Your task to perform on an android device: change notifications settings Image 0: 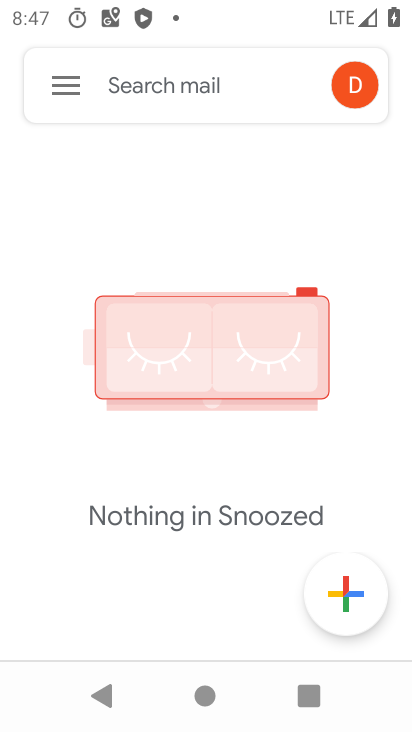
Step 0: press home button
Your task to perform on an android device: change notifications settings Image 1: 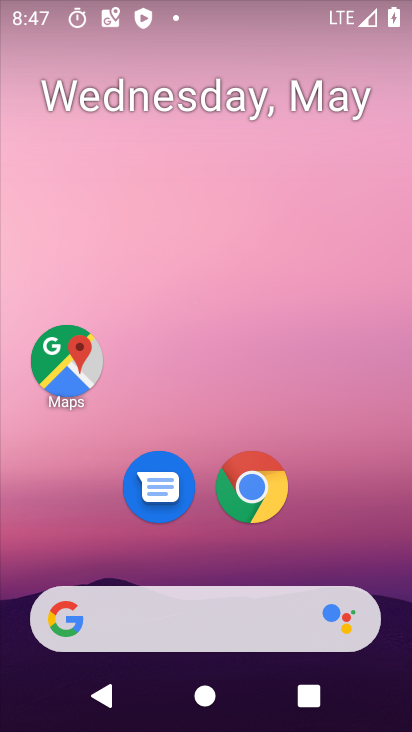
Step 1: drag from (203, 563) to (197, 206)
Your task to perform on an android device: change notifications settings Image 2: 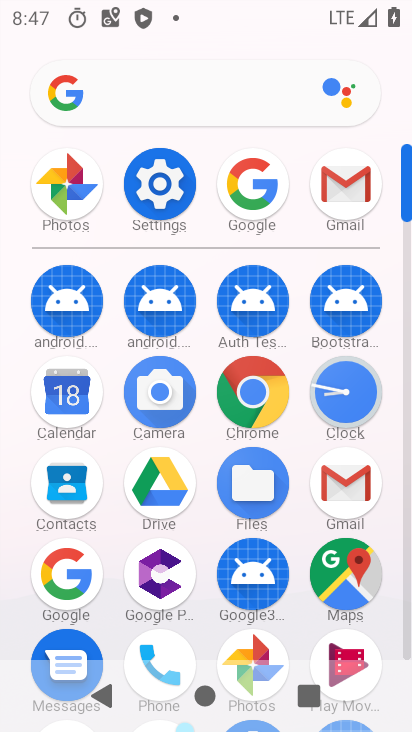
Step 2: click (172, 163)
Your task to perform on an android device: change notifications settings Image 3: 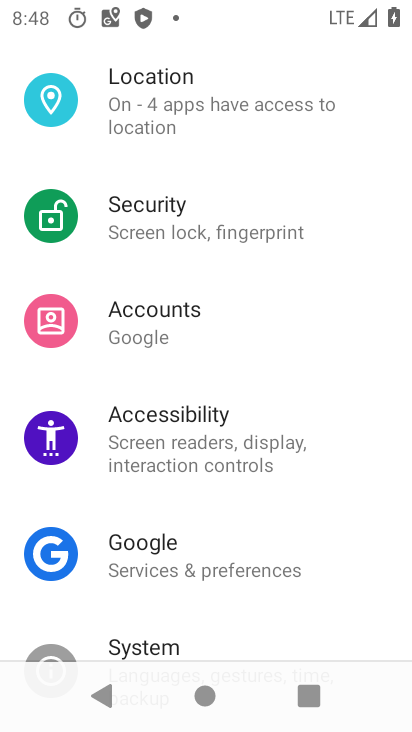
Step 3: drag from (236, 222) to (260, 500)
Your task to perform on an android device: change notifications settings Image 4: 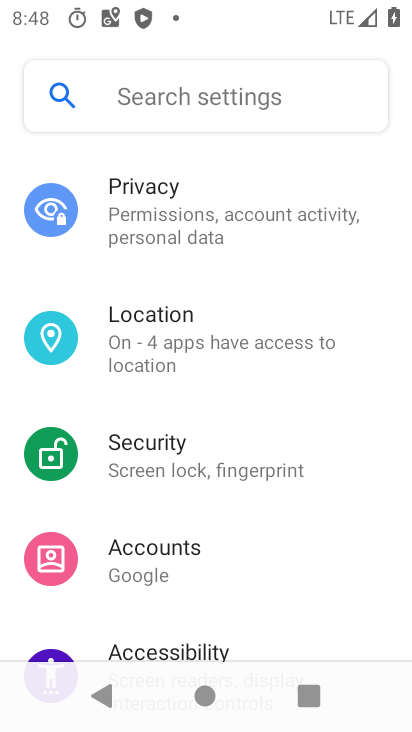
Step 4: drag from (250, 271) to (254, 499)
Your task to perform on an android device: change notifications settings Image 5: 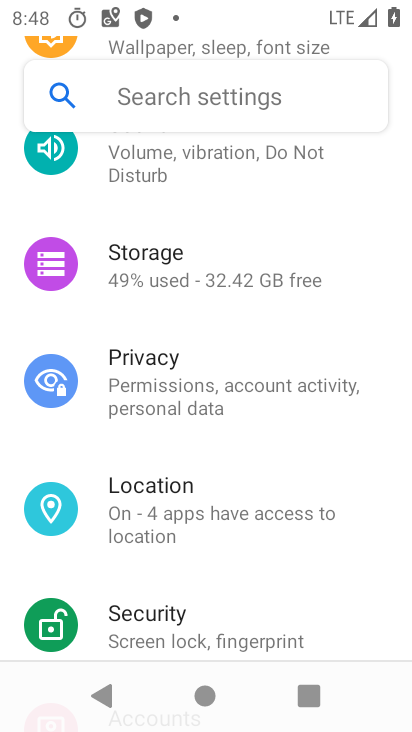
Step 5: drag from (244, 233) to (266, 522)
Your task to perform on an android device: change notifications settings Image 6: 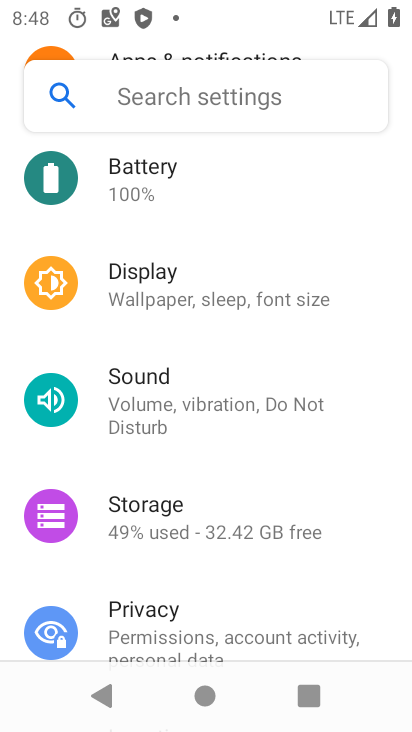
Step 6: drag from (226, 239) to (235, 442)
Your task to perform on an android device: change notifications settings Image 7: 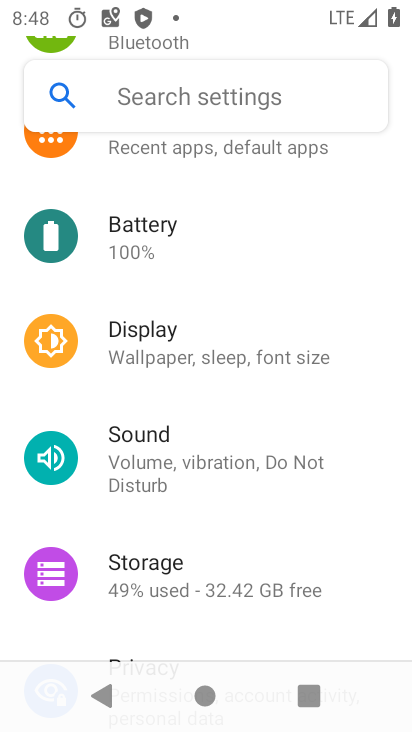
Step 7: drag from (212, 221) to (207, 508)
Your task to perform on an android device: change notifications settings Image 8: 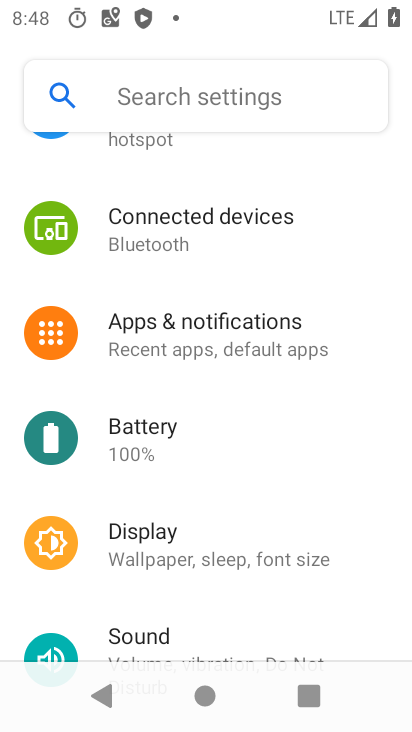
Step 8: click (170, 340)
Your task to perform on an android device: change notifications settings Image 9: 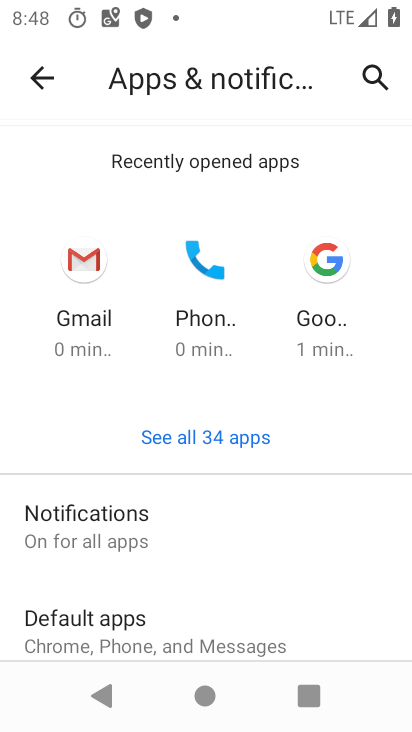
Step 9: click (171, 529)
Your task to perform on an android device: change notifications settings Image 10: 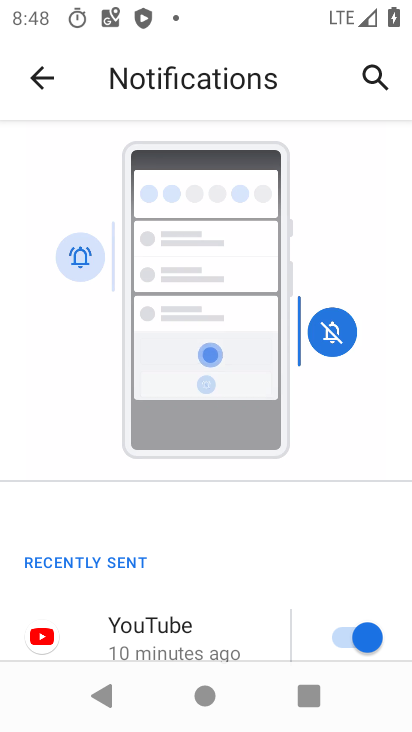
Step 10: task complete